Your task to perform on an android device: all mails in gmail Image 0: 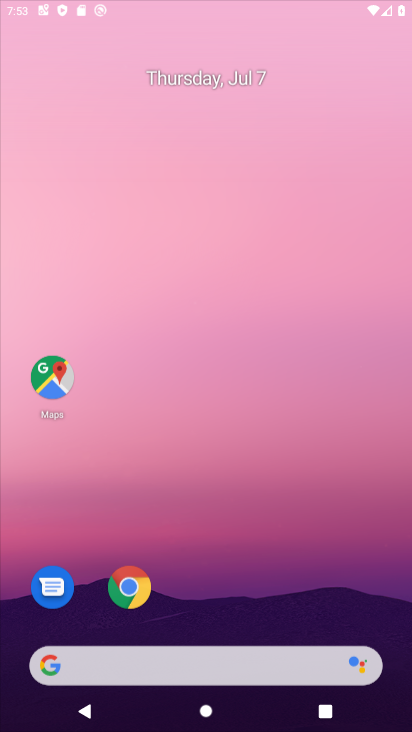
Step 0: click (206, 315)
Your task to perform on an android device: all mails in gmail Image 1: 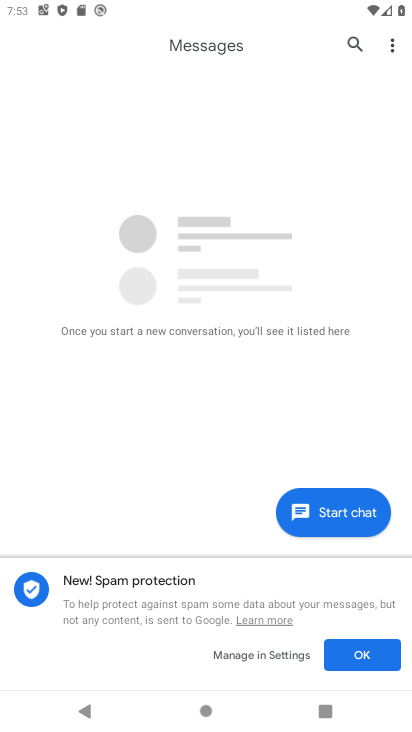
Step 1: drag from (183, 475) to (200, 377)
Your task to perform on an android device: all mails in gmail Image 2: 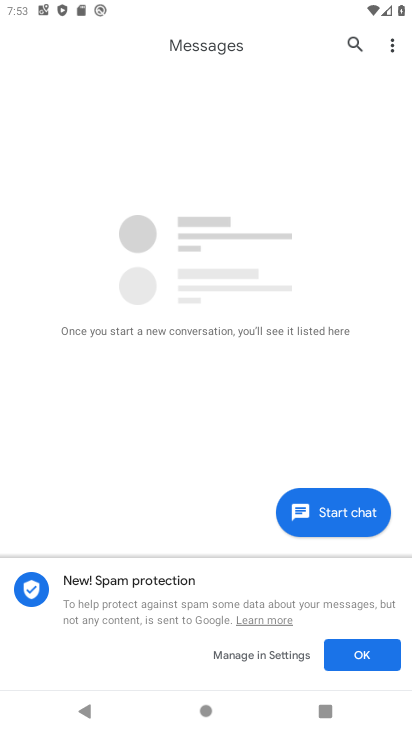
Step 2: drag from (148, 484) to (195, 267)
Your task to perform on an android device: all mails in gmail Image 3: 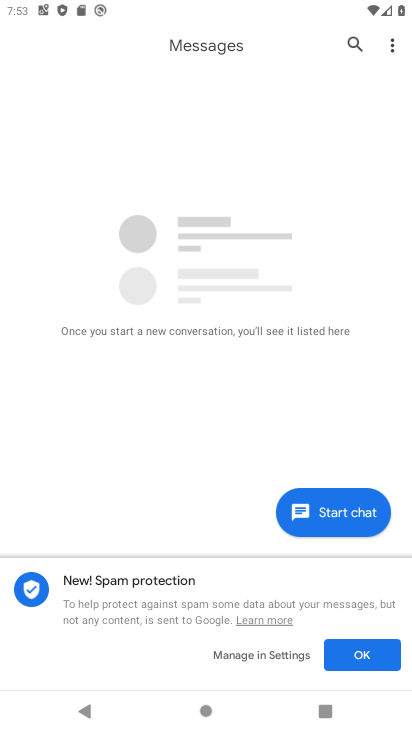
Step 3: drag from (197, 587) to (202, 347)
Your task to perform on an android device: all mails in gmail Image 4: 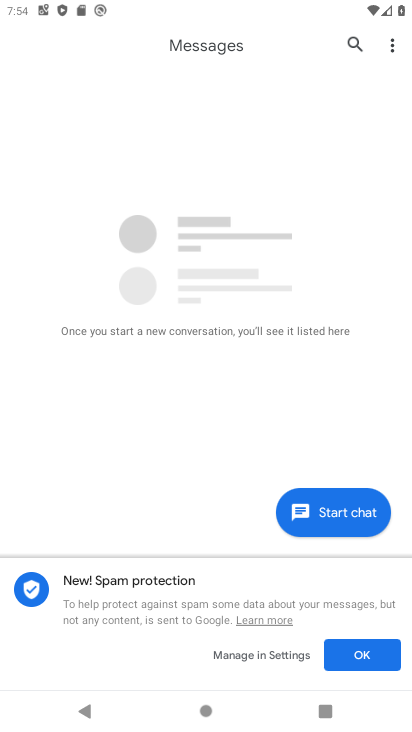
Step 4: drag from (163, 516) to (211, 246)
Your task to perform on an android device: all mails in gmail Image 5: 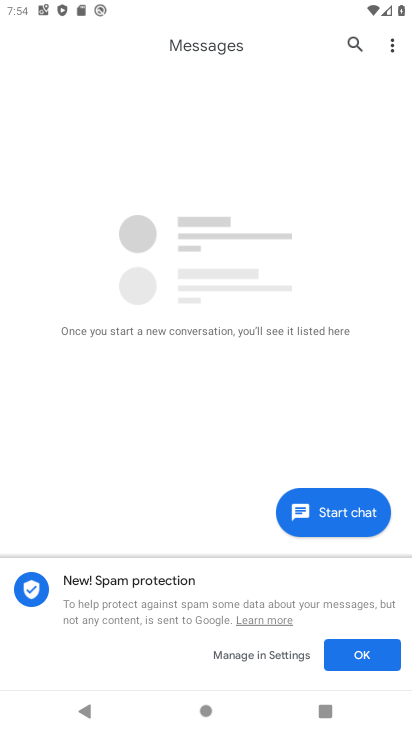
Step 5: press home button
Your task to perform on an android device: all mails in gmail Image 6: 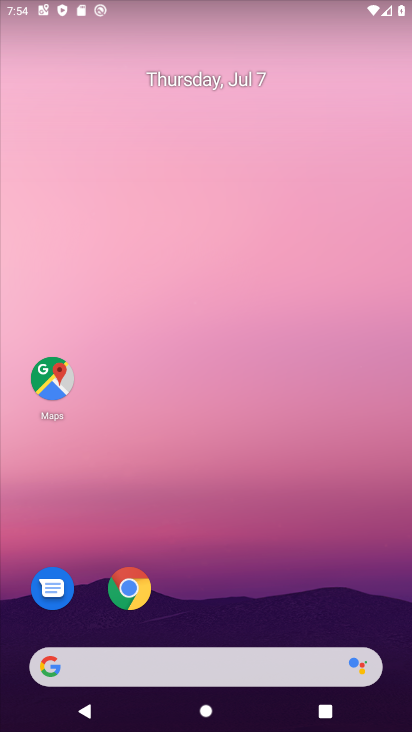
Step 6: drag from (178, 524) to (301, 23)
Your task to perform on an android device: all mails in gmail Image 7: 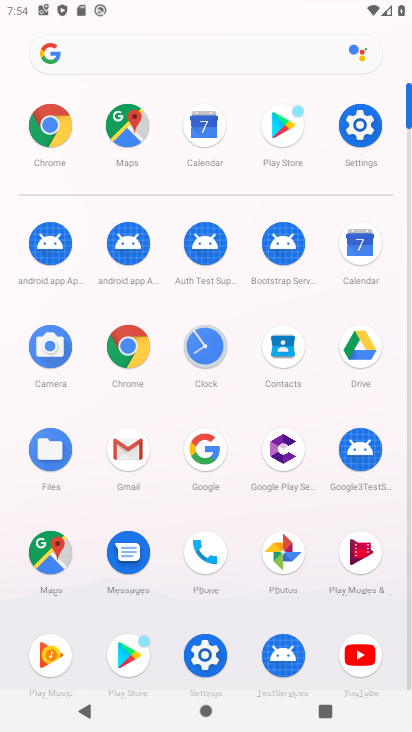
Step 7: click (121, 453)
Your task to perform on an android device: all mails in gmail Image 8: 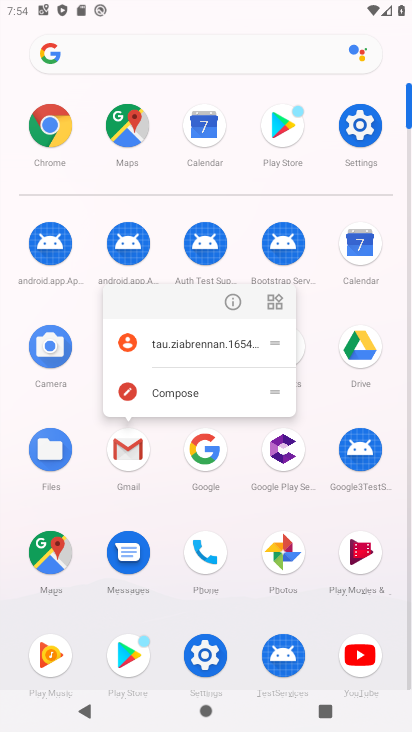
Step 8: click (236, 292)
Your task to perform on an android device: all mails in gmail Image 9: 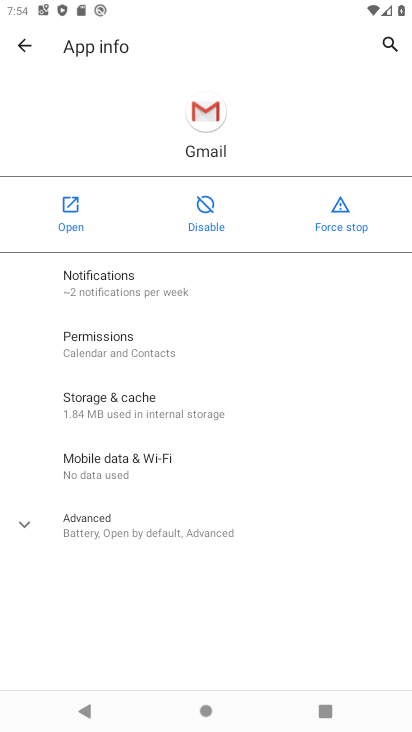
Step 9: click (72, 213)
Your task to perform on an android device: all mails in gmail Image 10: 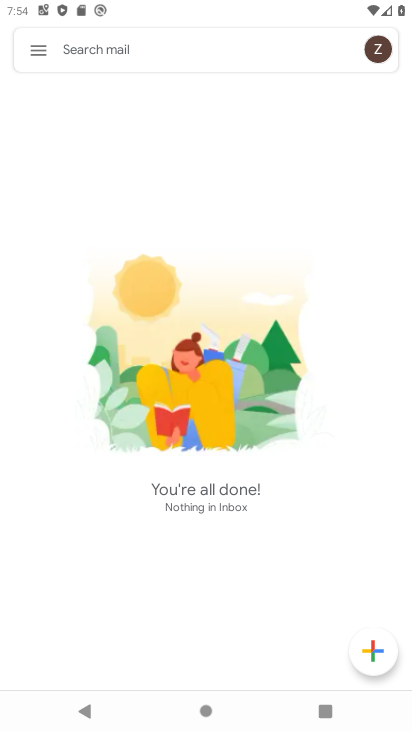
Step 10: click (33, 49)
Your task to perform on an android device: all mails in gmail Image 11: 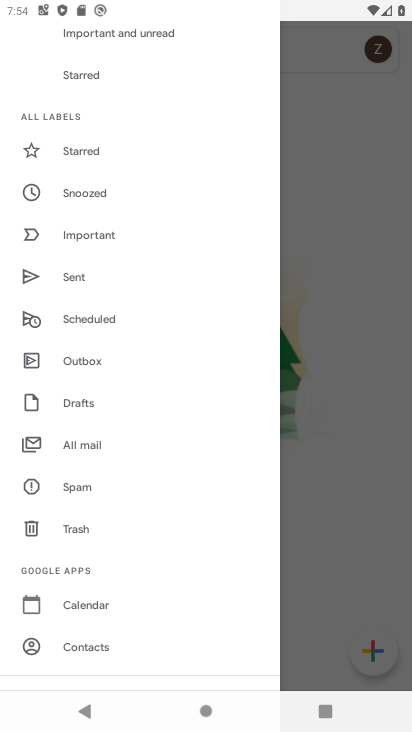
Step 11: click (106, 433)
Your task to perform on an android device: all mails in gmail Image 12: 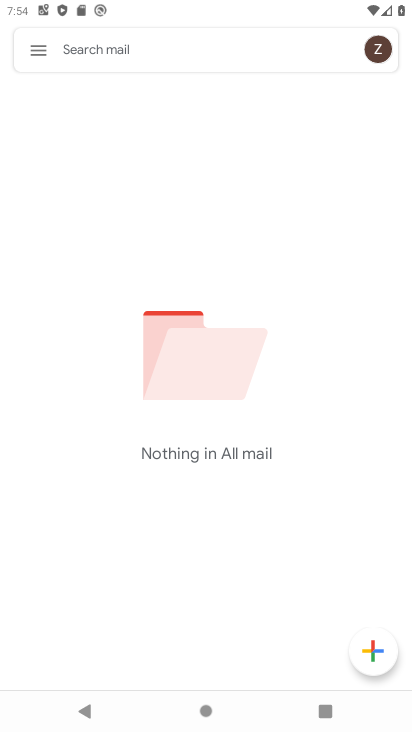
Step 12: task complete